Your task to perform on an android device: Open Google Chrome and open the bookmarks view Image 0: 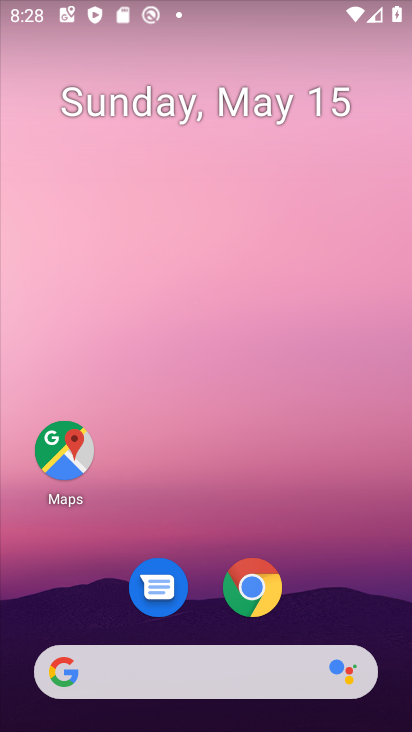
Step 0: drag from (391, 626) to (280, 39)
Your task to perform on an android device: Open Google Chrome and open the bookmarks view Image 1: 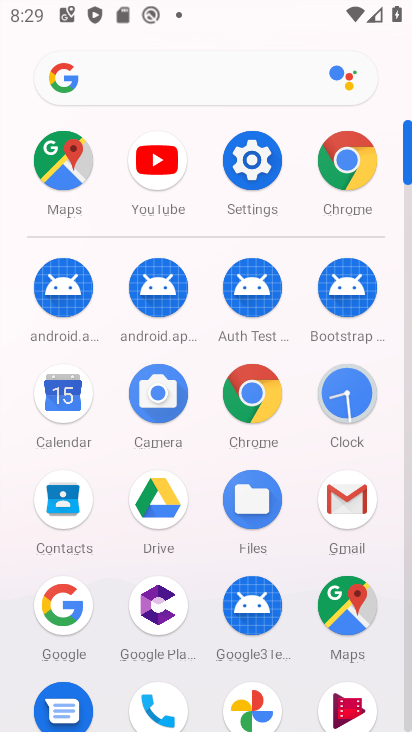
Step 1: click (249, 393)
Your task to perform on an android device: Open Google Chrome and open the bookmarks view Image 2: 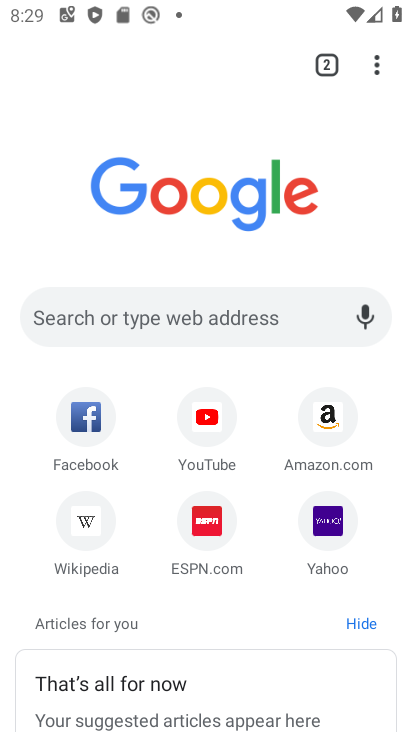
Step 2: click (374, 59)
Your task to perform on an android device: Open Google Chrome and open the bookmarks view Image 3: 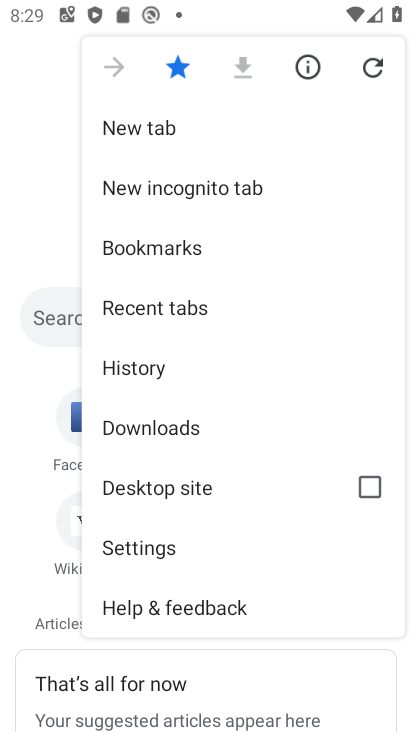
Step 3: click (194, 242)
Your task to perform on an android device: Open Google Chrome and open the bookmarks view Image 4: 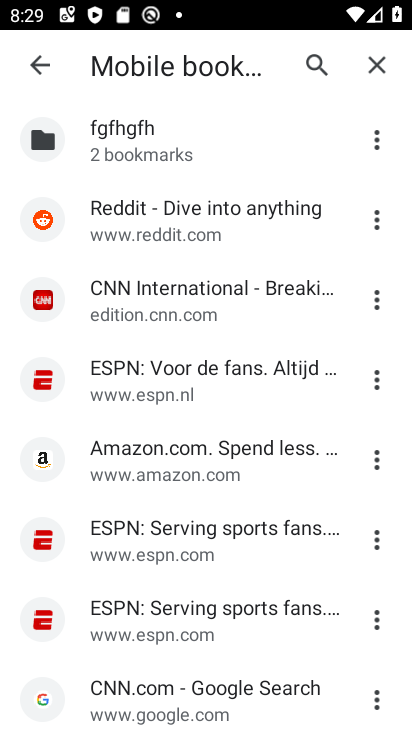
Step 4: task complete